Your task to perform on an android device: add a contact Image 0: 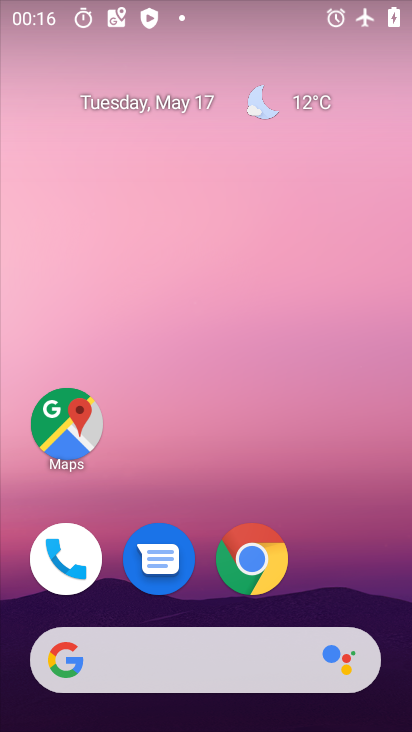
Step 0: drag from (375, 555) to (365, 58)
Your task to perform on an android device: add a contact Image 1: 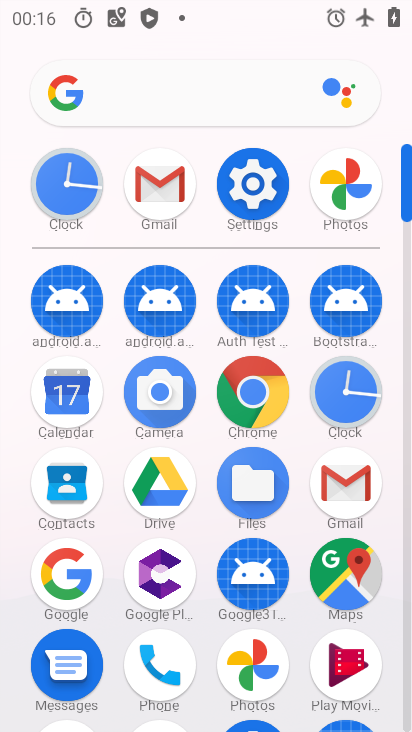
Step 1: click (79, 487)
Your task to perform on an android device: add a contact Image 2: 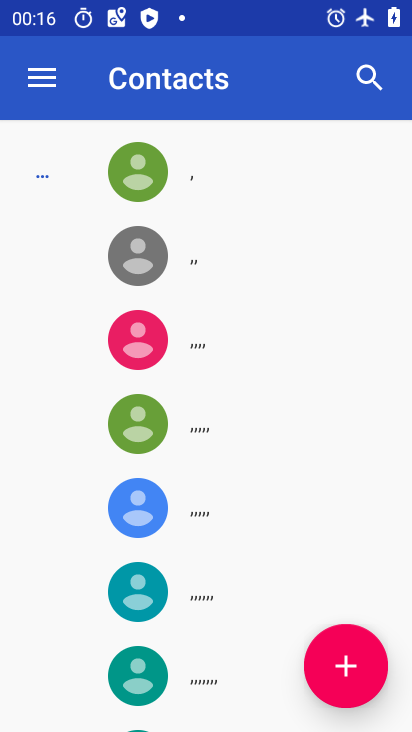
Step 2: click (330, 670)
Your task to perform on an android device: add a contact Image 3: 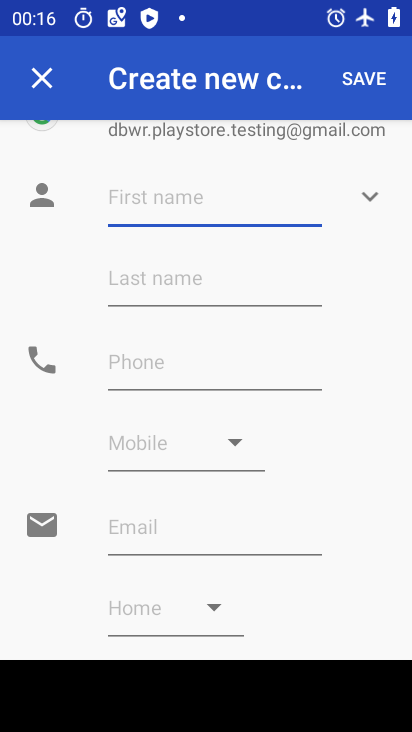
Step 3: click (268, 211)
Your task to perform on an android device: add a contact Image 4: 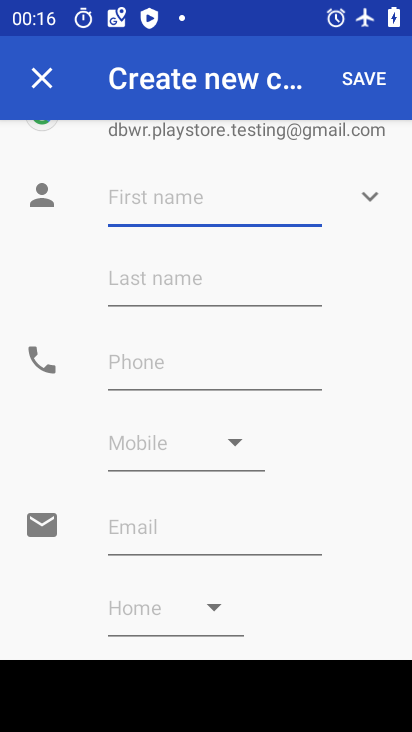
Step 4: type "ghomna"
Your task to perform on an android device: add a contact Image 5: 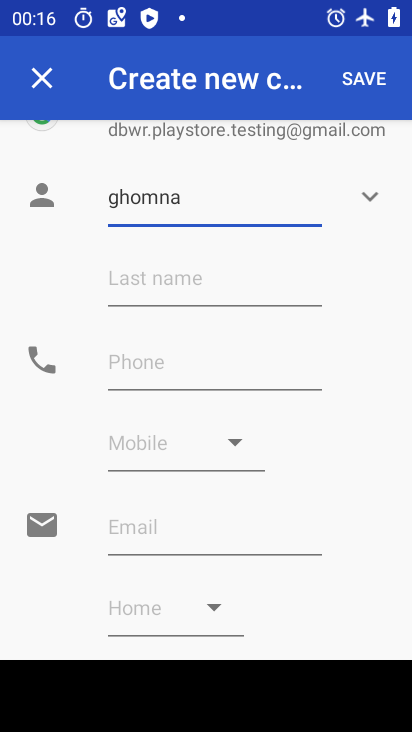
Step 5: click (373, 77)
Your task to perform on an android device: add a contact Image 6: 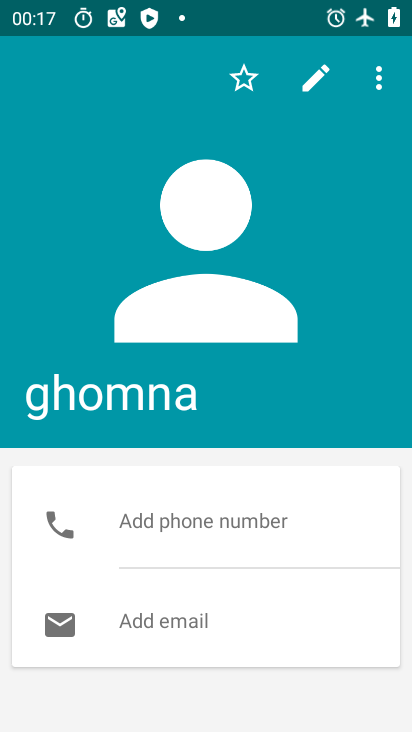
Step 6: task complete